Your task to perform on an android device: Turn off the flashlight Image 0: 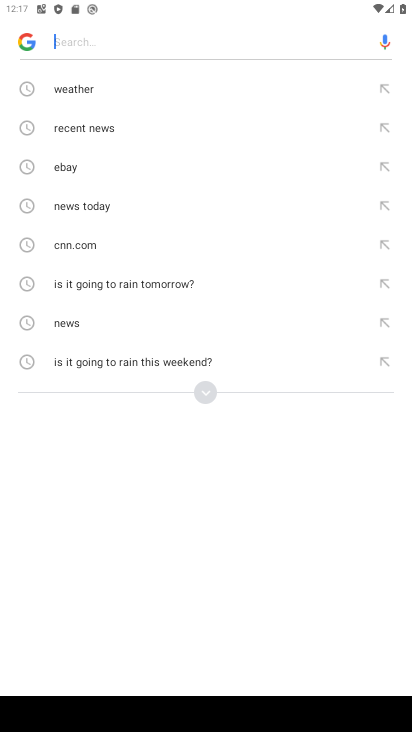
Step 0: press home button
Your task to perform on an android device: Turn off the flashlight Image 1: 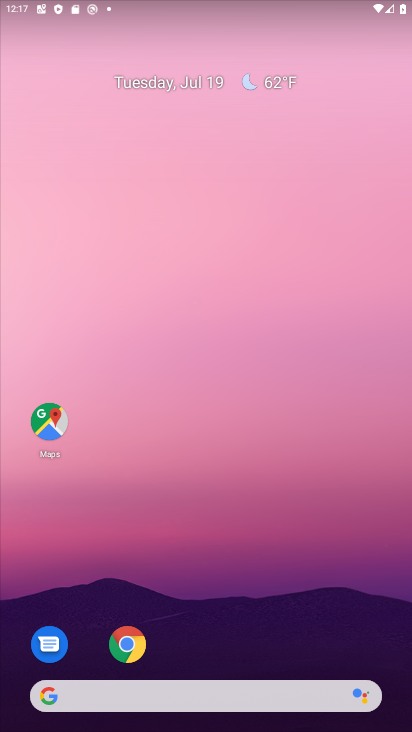
Step 1: drag from (245, 566) to (228, 5)
Your task to perform on an android device: Turn off the flashlight Image 2: 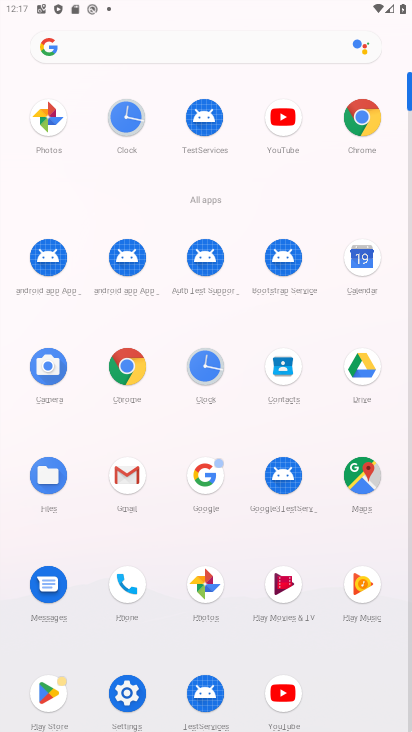
Step 2: click (129, 693)
Your task to perform on an android device: Turn off the flashlight Image 3: 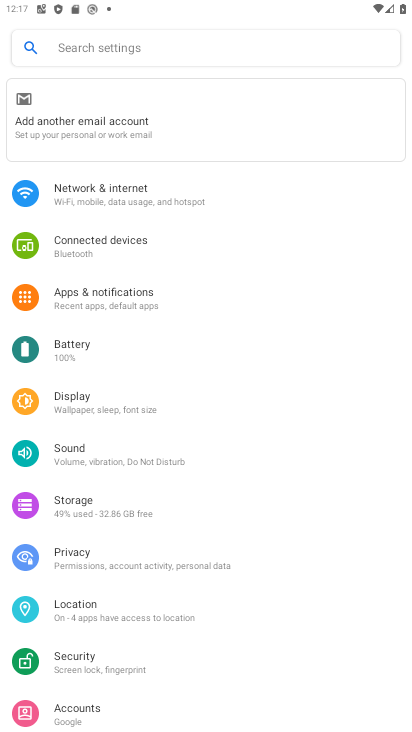
Step 3: click (67, 398)
Your task to perform on an android device: Turn off the flashlight Image 4: 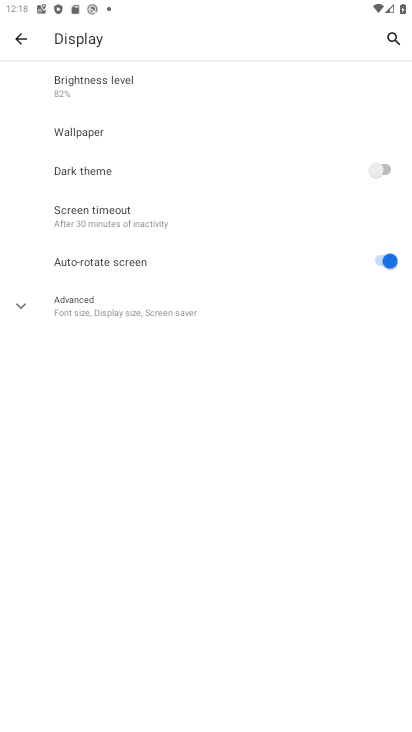
Step 4: task complete